Your task to perform on an android device: open chrome and create a bookmark for the current page Image 0: 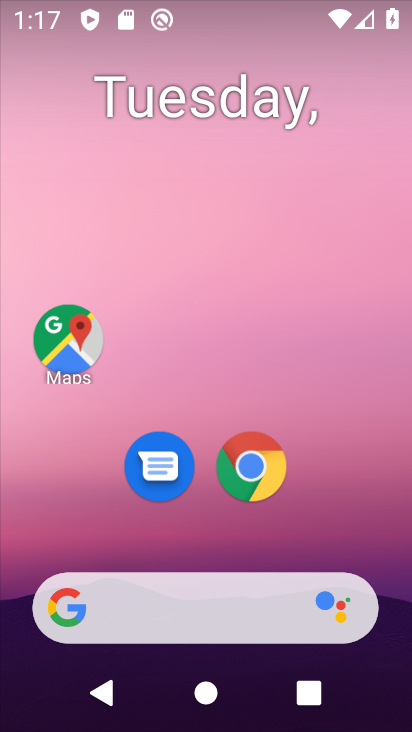
Step 0: click (271, 497)
Your task to perform on an android device: open chrome and create a bookmark for the current page Image 1: 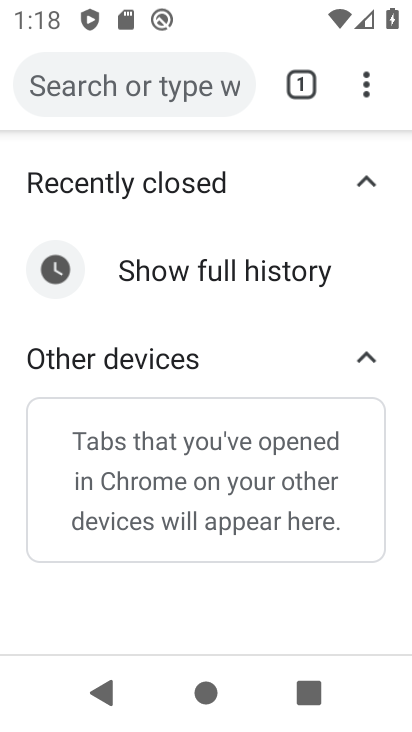
Step 1: click (376, 92)
Your task to perform on an android device: open chrome and create a bookmark for the current page Image 2: 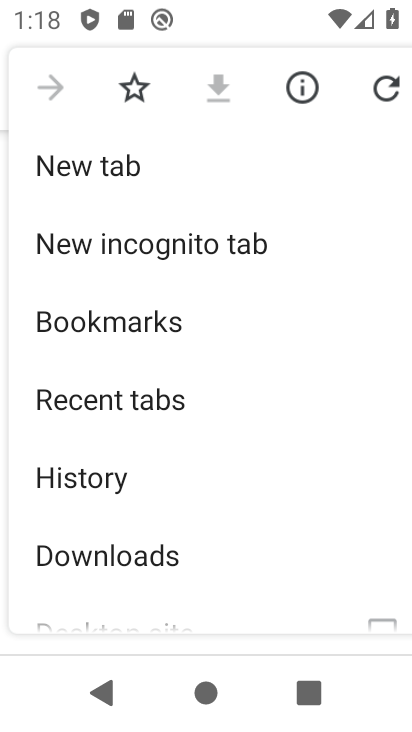
Step 2: click (153, 317)
Your task to perform on an android device: open chrome and create a bookmark for the current page Image 3: 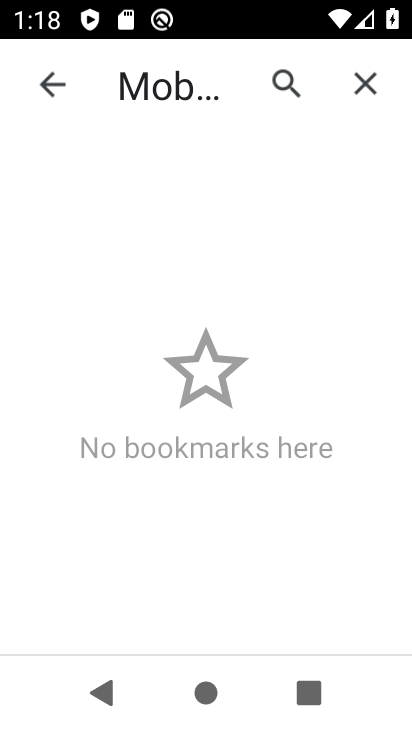
Step 3: task complete